Your task to perform on an android device: Open the map Image 0: 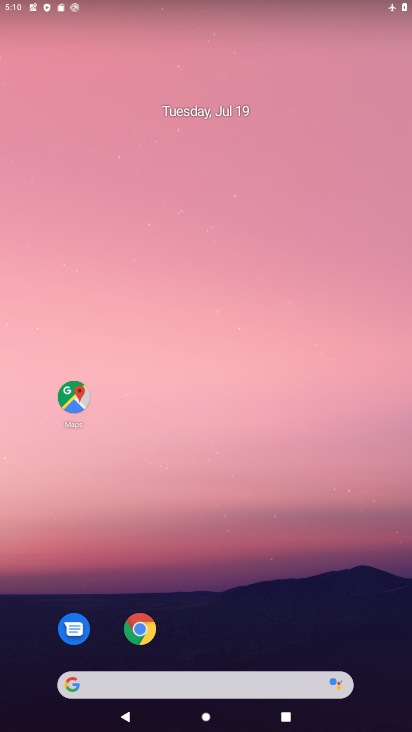
Step 0: press home button
Your task to perform on an android device: Open the map Image 1: 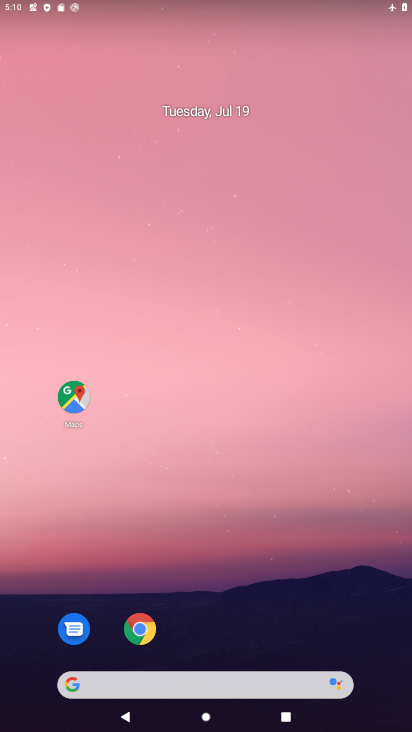
Step 1: drag from (241, 643) to (225, 72)
Your task to perform on an android device: Open the map Image 2: 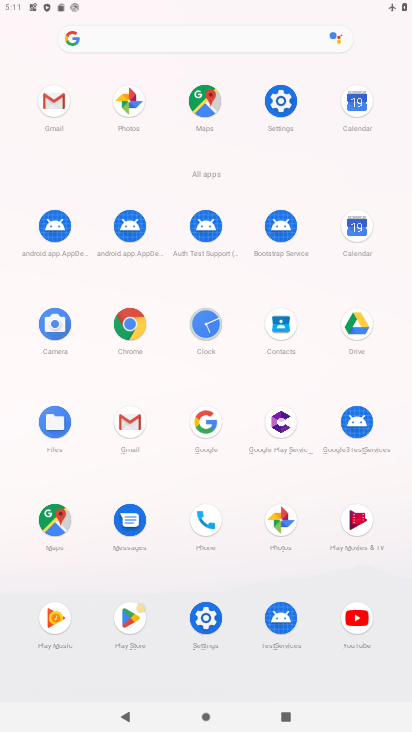
Step 2: click (203, 102)
Your task to perform on an android device: Open the map Image 3: 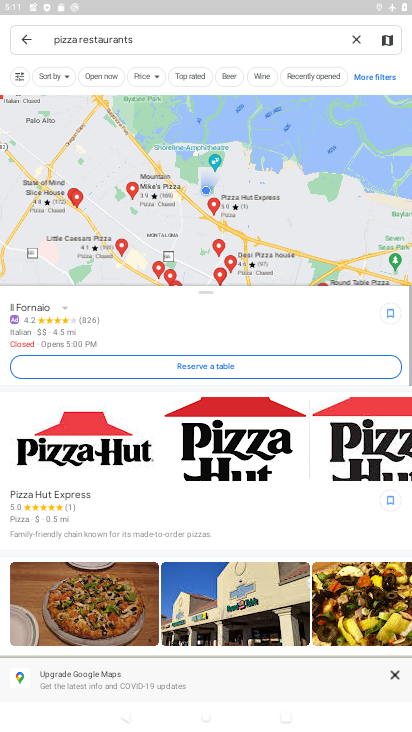
Step 3: click (360, 38)
Your task to perform on an android device: Open the map Image 4: 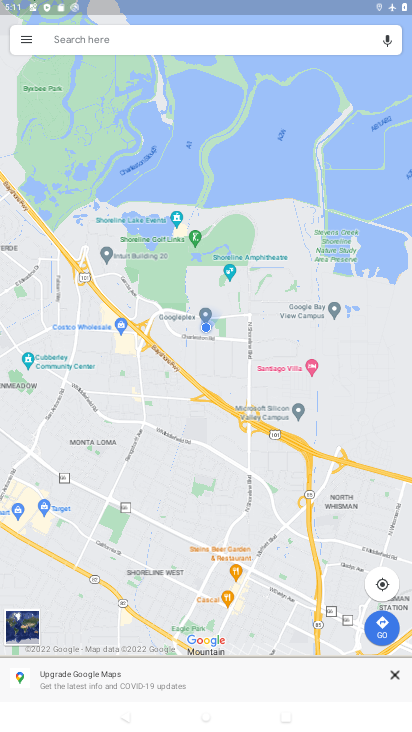
Step 4: task complete